Your task to perform on an android device: Open the web browser Image 0: 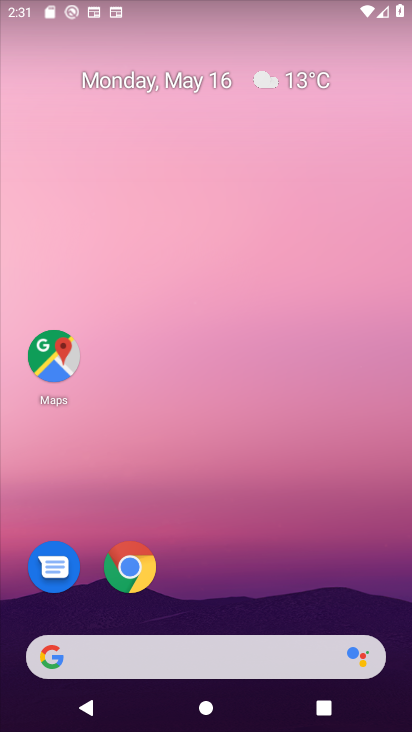
Step 0: click (131, 575)
Your task to perform on an android device: Open the web browser Image 1: 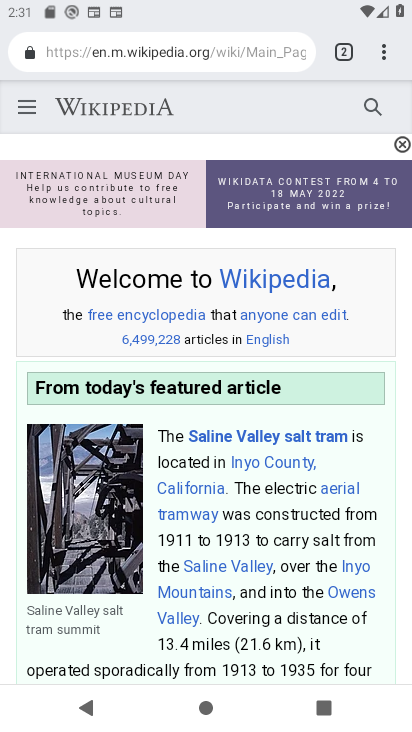
Step 1: task complete